Your task to perform on an android device: Go to accessibility settings Image 0: 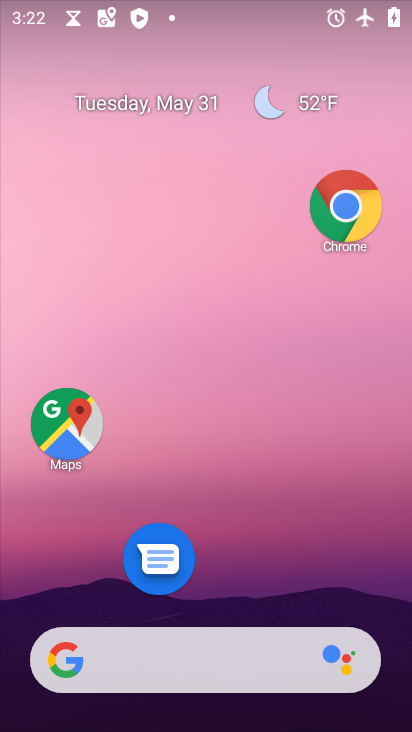
Step 0: drag from (261, 564) to (252, 258)
Your task to perform on an android device: Go to accessibility settings Image 1: 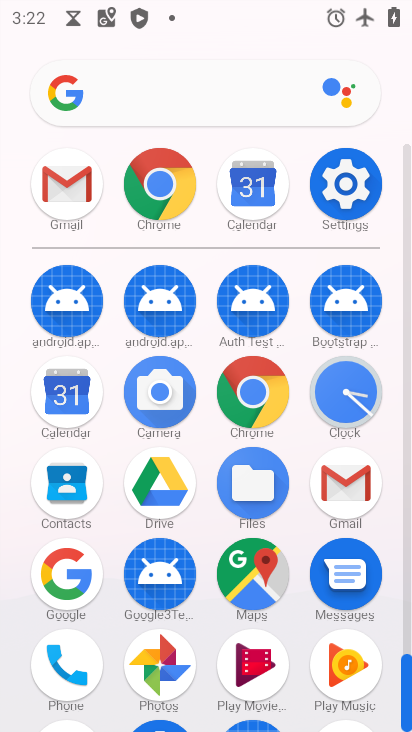
Step 1: click (369, 200)
Your task to perform on an android device: Go to accessibility settings Image 2: 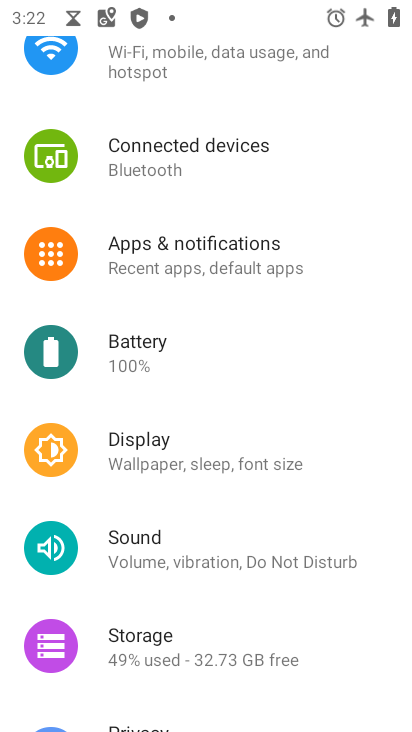
Step 2: drag from (246, 493) to (261, 128)
Your task to perform on an android device: Go to accessibility settings Image 3: 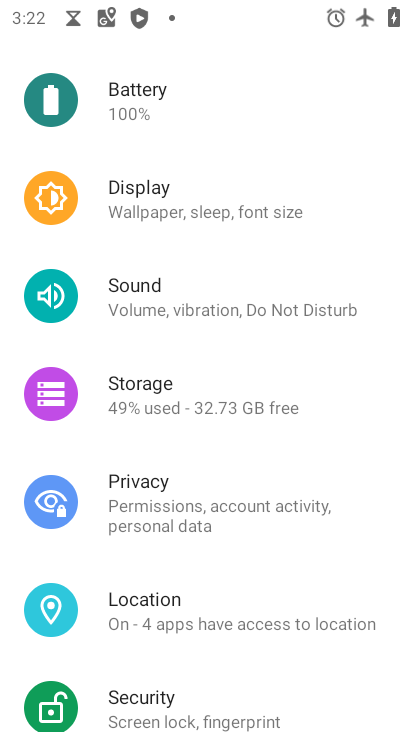
Step 3: drag from (121, 545) to (223, 155)
Your task to perform on an android device: Go to accessibility settings Image 4: 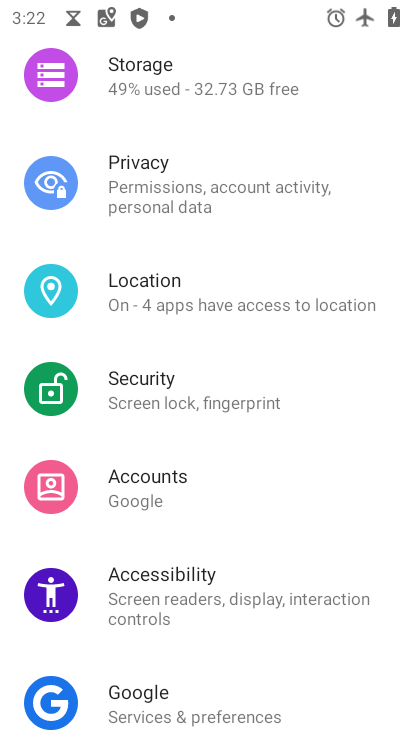
Step 4: click (178, 578)
Your task to perform on an android device: Go to accessibility settings Image 5: 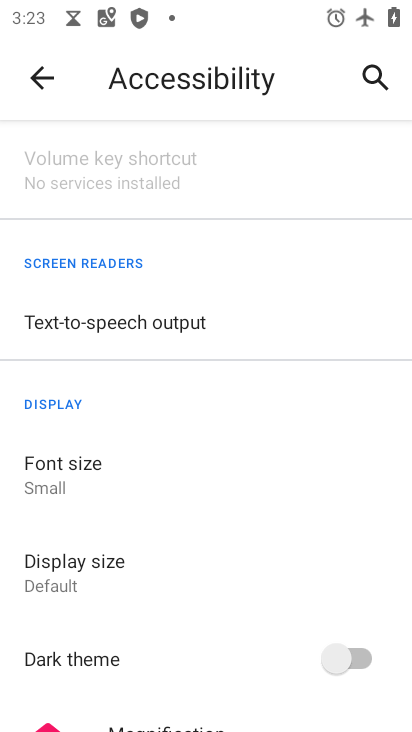
Step 5: task complete